Your task to perform on an android device: Add bose soundlink mini to the cart on costco, then select checkout. Image 0: 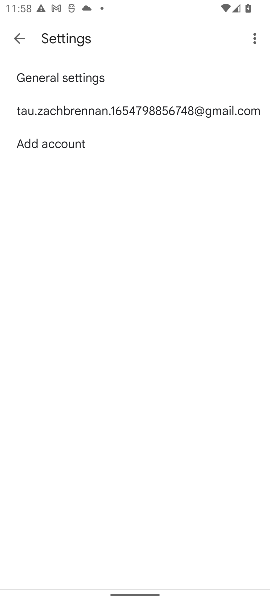
Step 0: press home button
Your task to perform on an android device: Add bose soundlink mini to the cart on costco, then select checkout. Image 1: 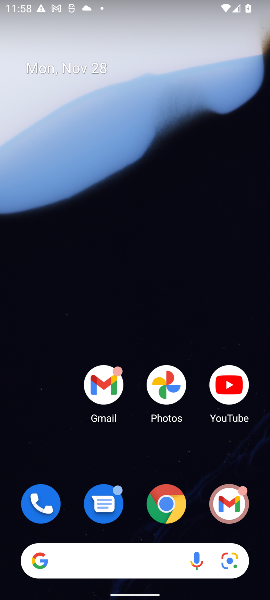
Step 1: click (162, 507)
Your task to perform on an android device: Add bose soundlink mini to the cart on costco, then select checkout. Image 2: 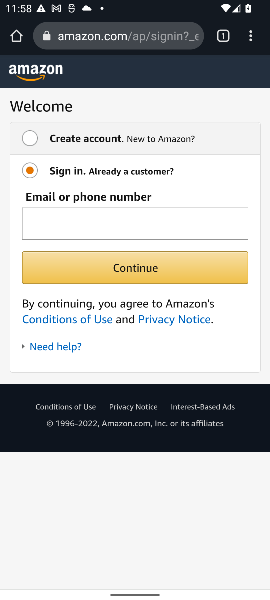
Step 2: click (117, 37)
Your task to perform on an android device: Add bose soundlink mini to the cart on costco, then select checkout. Image 3: 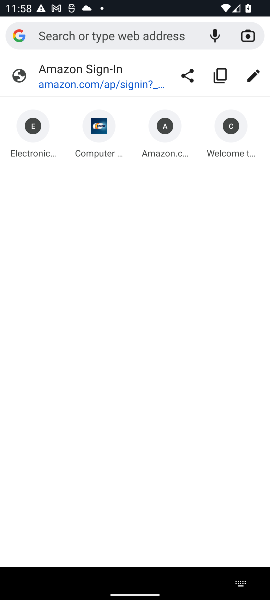
Step 3: type "costco.com"
Your task to perform on an android device: Add bose soundlink mini to the cart on costco, then select checkout. Image 4: 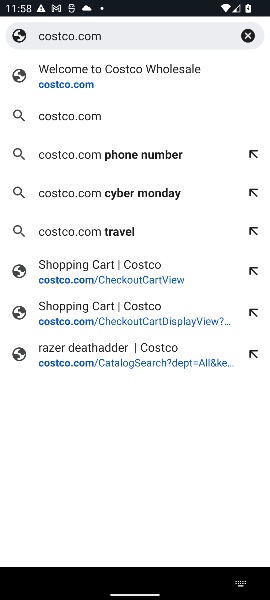
Step 4: click (39, 79)
Your task to perform on an android device: Add bose soundlink mini to the cart on costco, then select checkout. Image 5: 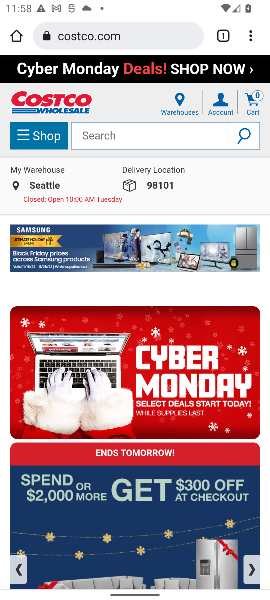
Step 5: click (105, 137)
Your task to perform on an android device: Add bose soundlink mini to the cart on costco, then select checkout. Image 6: 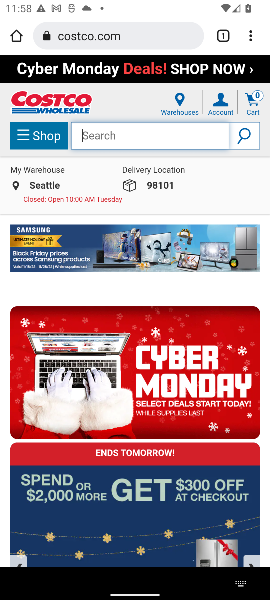
Step 6: type "bose soundlink mini"
Your task to perform on an android device: Add bose soundlink mini to the cart on costco, then select checkout. Image 7: 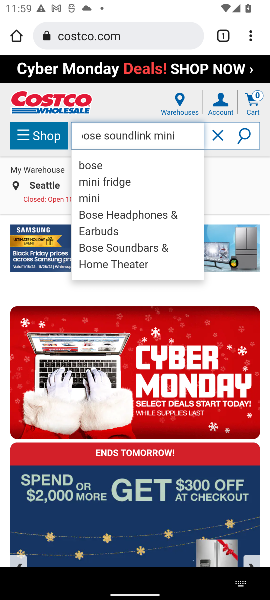
Step 7: click (240, 141)
Your task to perform on an android device: Add bose soundlink mini to the cart on costco, then select checkout. Image 8: 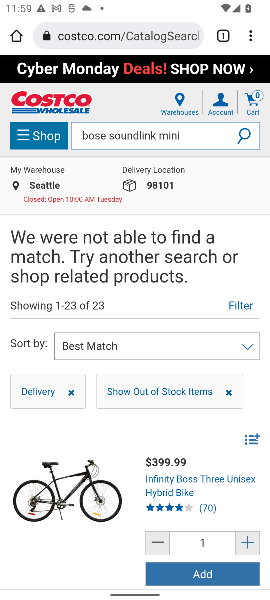
Step 8: task complete